Your task to perform on an android device: Show me popular games on the Play Store Image 0: 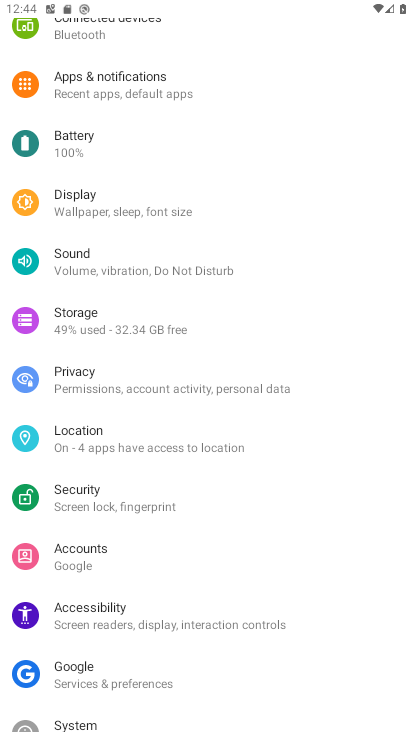
Step 0: press home button
Your task to perform on an android device: Show me popular games on the Play Store Image 1: 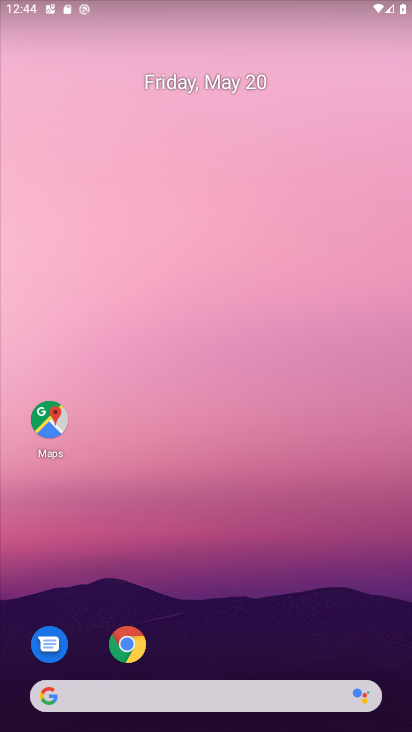
Step 1: drag from (150, 679) to (181, 415)
Your task to perform on an android device: Show me popular games on the Play Store Image 2: 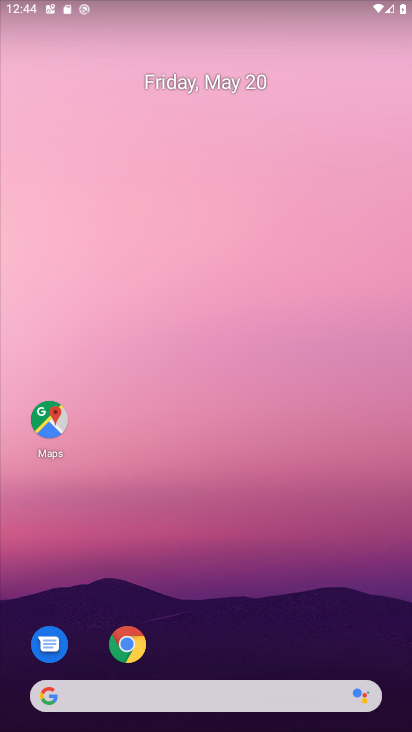
Step 2: drag from (214, 683) to (250, 268)
Your task to perform on an android device: Show me popular games on the Play Store Image 3: 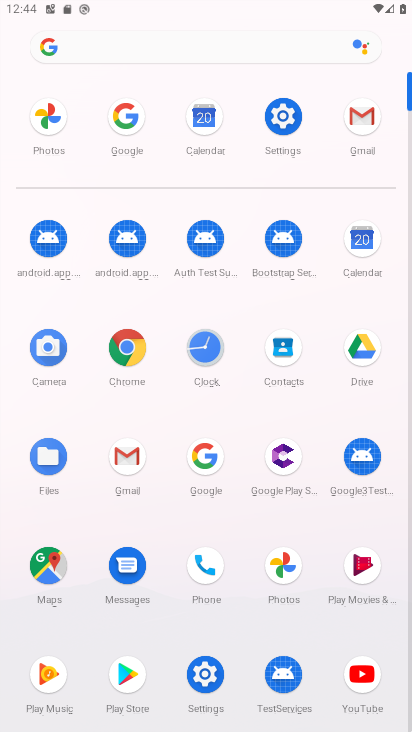
Step 3: click (123, 682)
Your task to perform on an android device: Show me popular games on the Play Store Image 4: 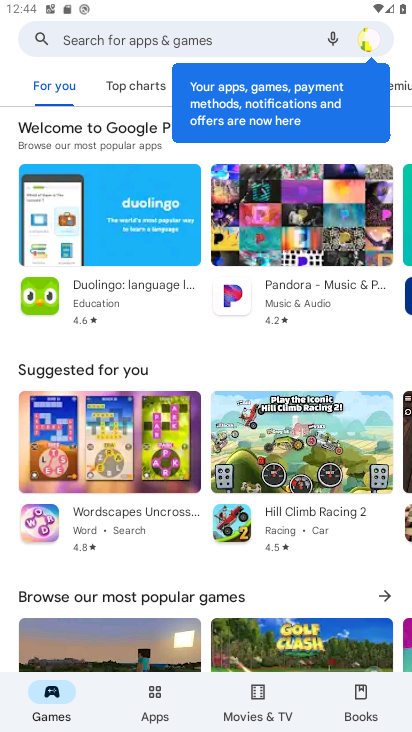
Step 4: click (233, 33)
Your task to perform on an android device: Show me popular games on the Play Store Image 5: 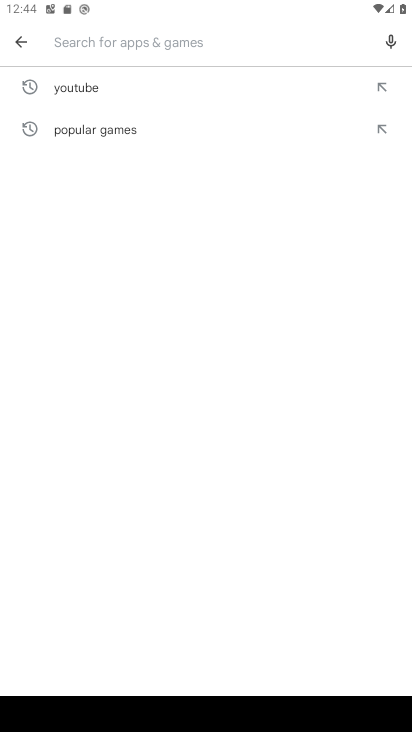
Step 5: click (117, 134)
Your task to perform on an android device: Show me popular games on the Play Store Image 6: 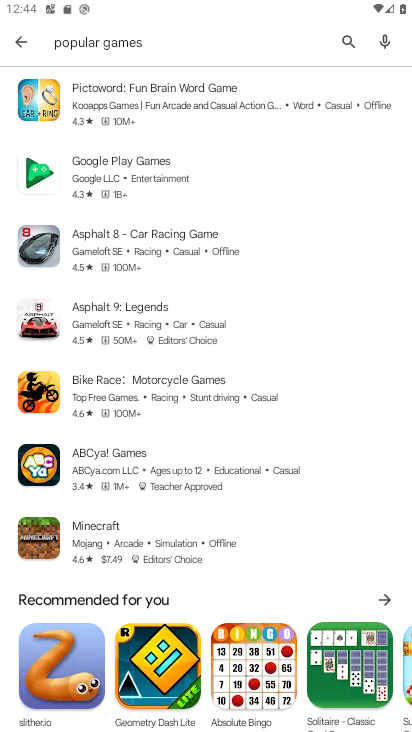
Step 6: task complete